Your task to perform on an android device: Open Google Maps Image 0: 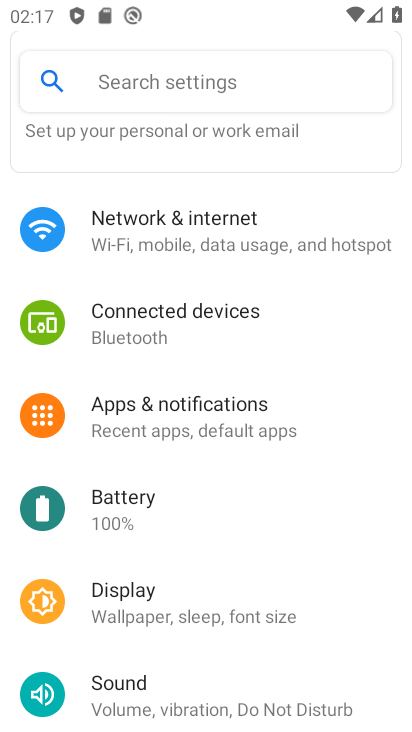
Step 0: press home button
Your task to perform on an android device: Open Google Maps Image 1: 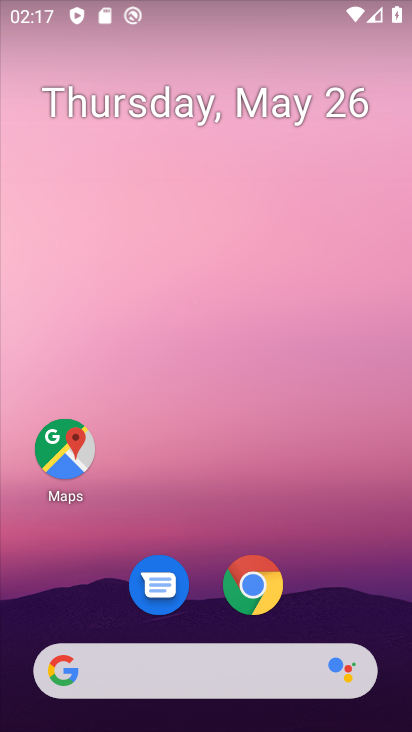
Step 1: click (71, 456)
Your task to perform on an android device: Open Google Maps Image 2: 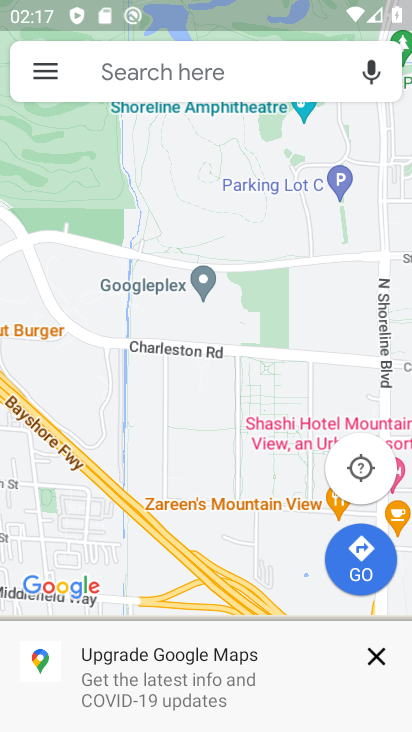
Step 2: task complete